Your task to perform on an android device: Open settings Image 0: 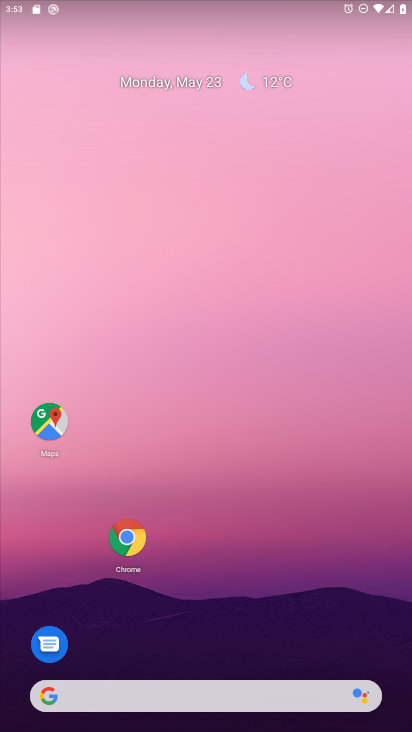
Step 0: drag from (260, 589) to (229, 134)
Your task to perform on an android device: Open settings Image 1: 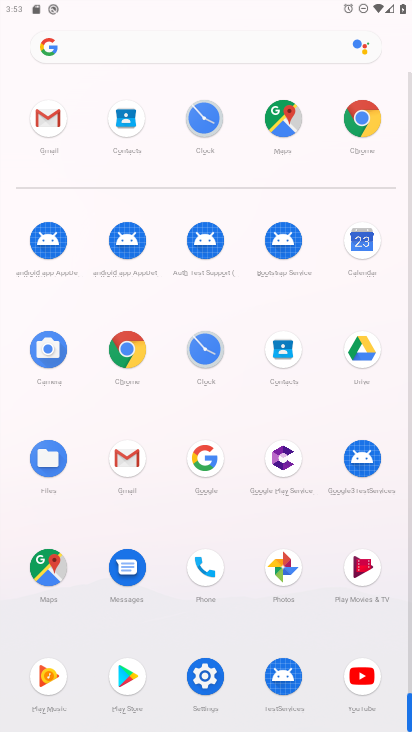
Step 1: click (202, 687)
Your task to perform on an android device: Open settings Image 2: 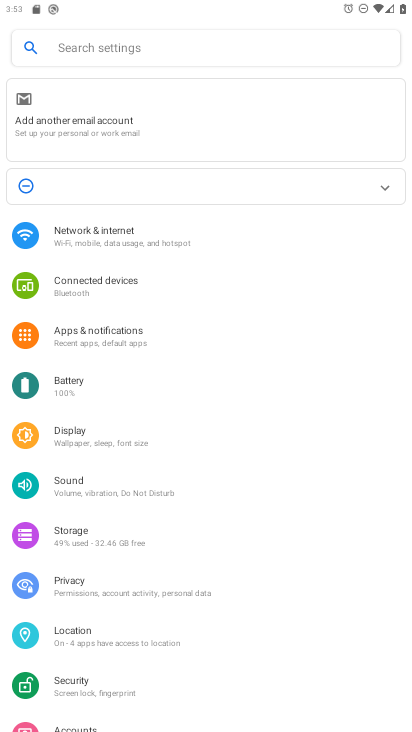
Step 2: task complete